Your task to perform on an android device: Open internet settings Image 0: 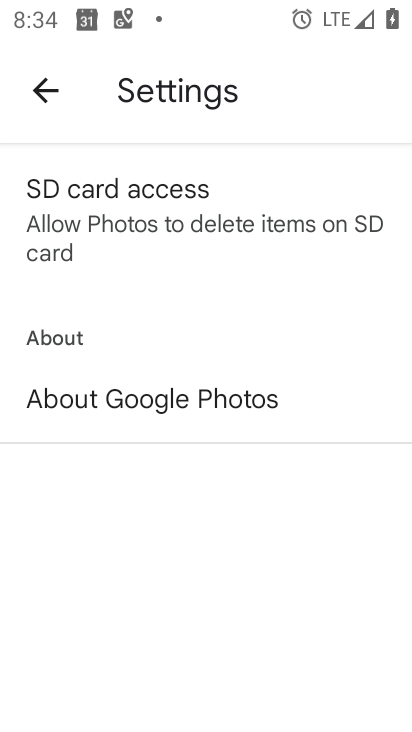
Step 0: press home button
Your task to perform on an android device: Open internet settings Image 1: 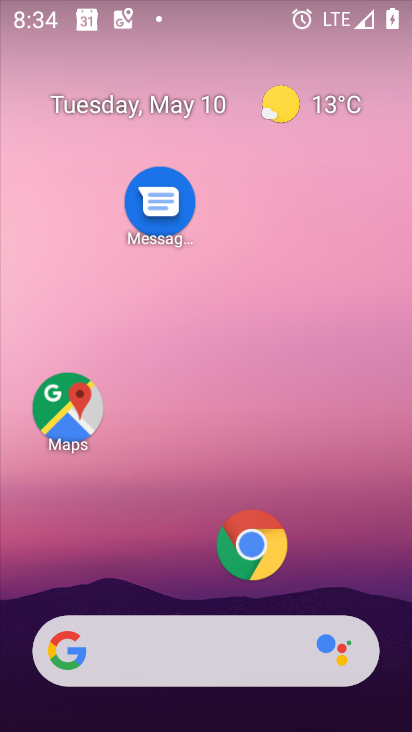
Step 1: drag from (189, 595) to (201, 27)
Your task to perform on an android device: Open internet settings Image 2: 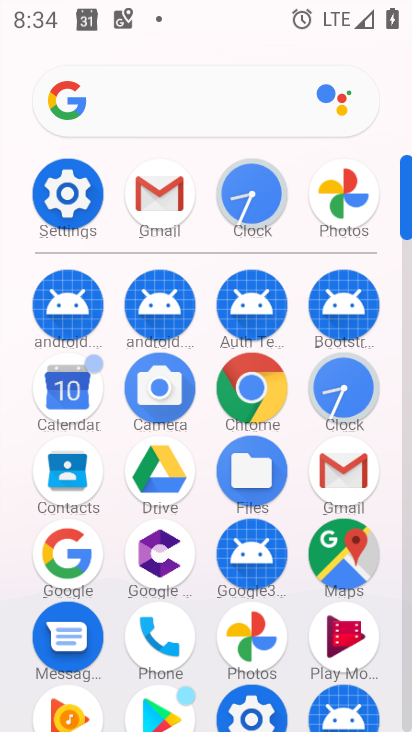
Step 2: click (64, 186)
Your task to perform on an android device: Open internet settings Image 3: 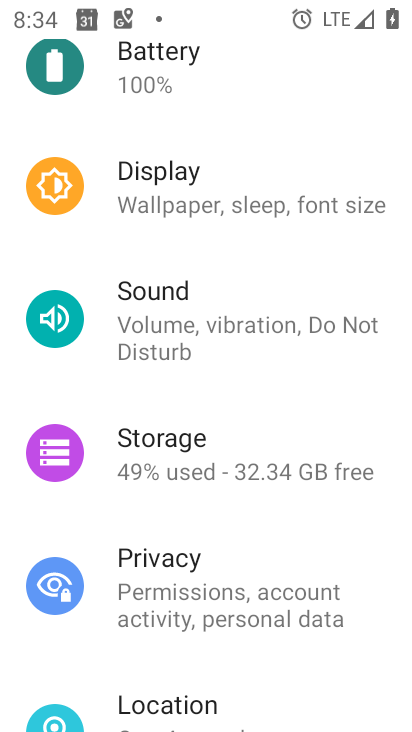
Step 3: drag from (200, 135) to (200, 612)
Your task to perform on an android device: Open internet settings Image 4: 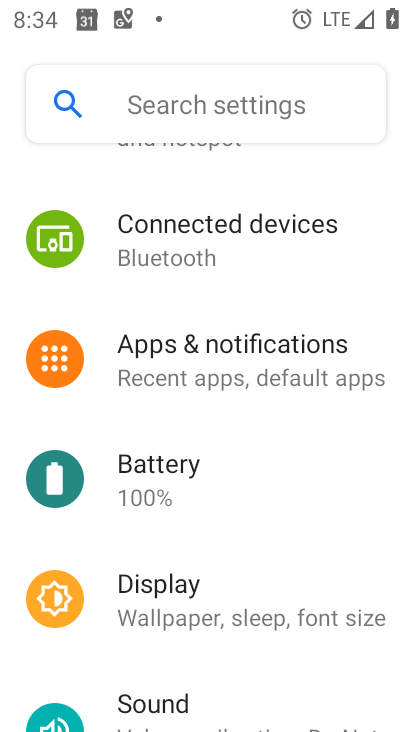
Step 4: drag from (183, 212) to (185, 550)
Your task to perform on an android device: Open internet settings Image 5: 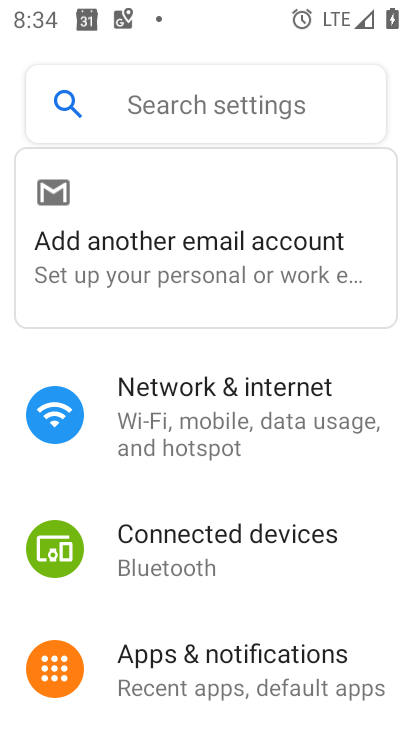
Step 5: click (178, 395)
Your task to perform on an android device: Open internet settings Image 6: 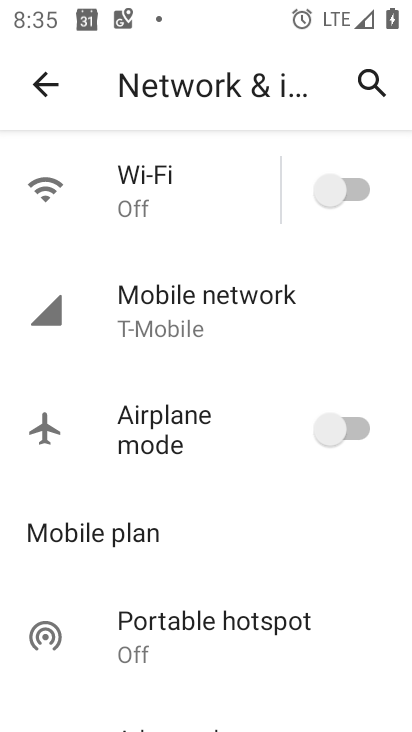
Step 6: drag from (191, 636) to (221, 172)
Your task to perform on an android device: Open internet settings Image 7: 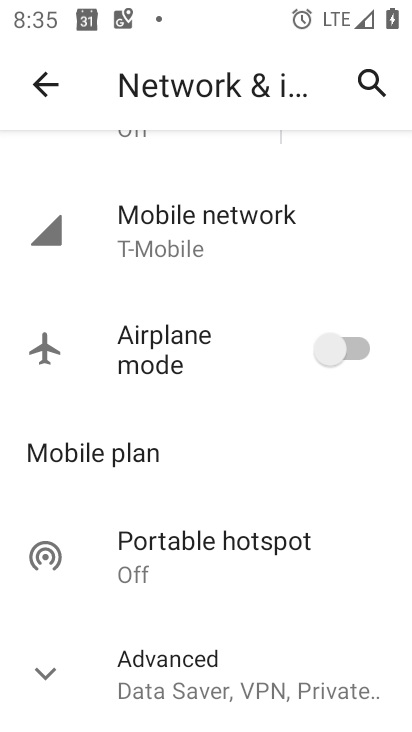
Step 7: click (41, 668)
Your task to perform on an android device: Open internet settings Image 8: 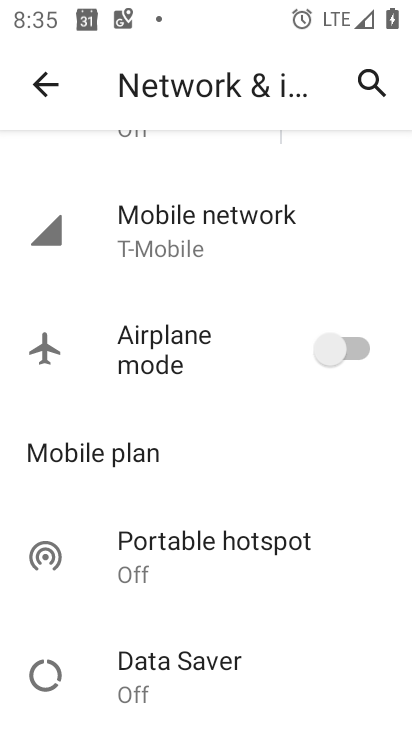
Step 8: task complete